Your task to perform on an android device: Toggle the flashlight Image 0: 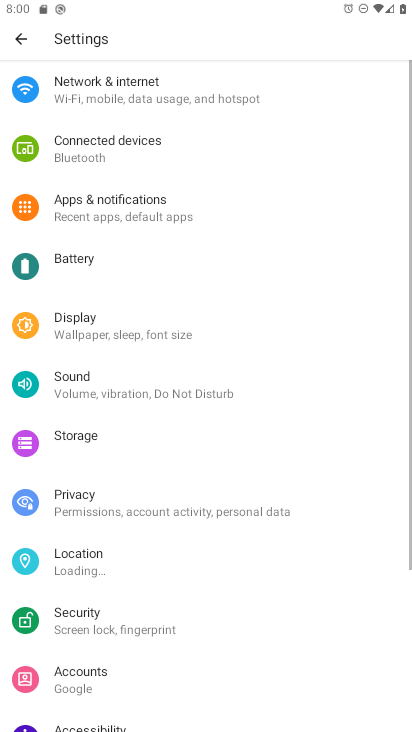
Step 0: drag from (174, 673) to (209, 406)
Your task to perform on an android device: Toggle the flashlight Image 1: 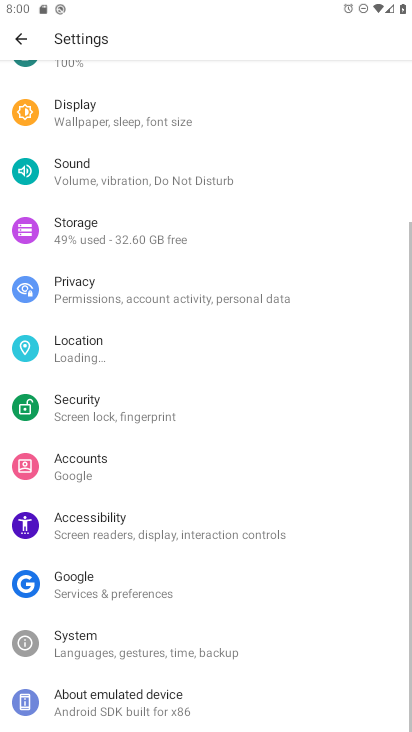
Step 1: press home button
Your task to perform on an android device: Toggle the flashlight Image 2: 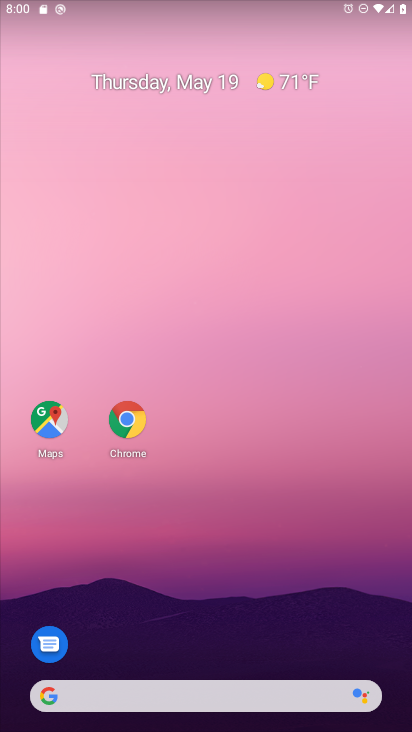
Step 2: drag from (250, 11) to (293, 480)
Your task to perform on an android device: Toggle the flashlight Image 3: 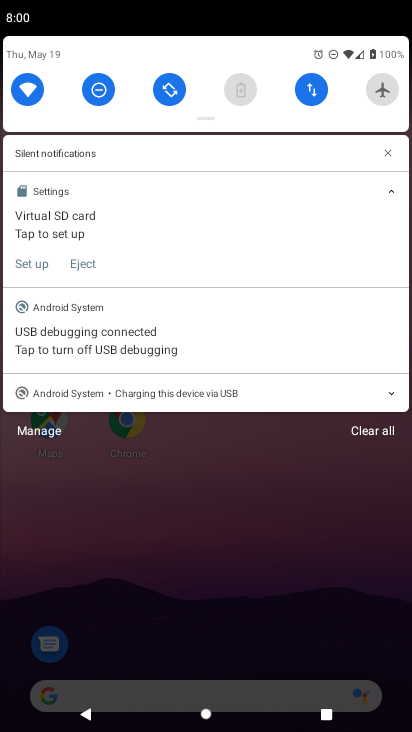
Step 3: drag from (225, 76) to (257, 530)
Your task to perform on an android device: Toggle the flashlight Image 4: 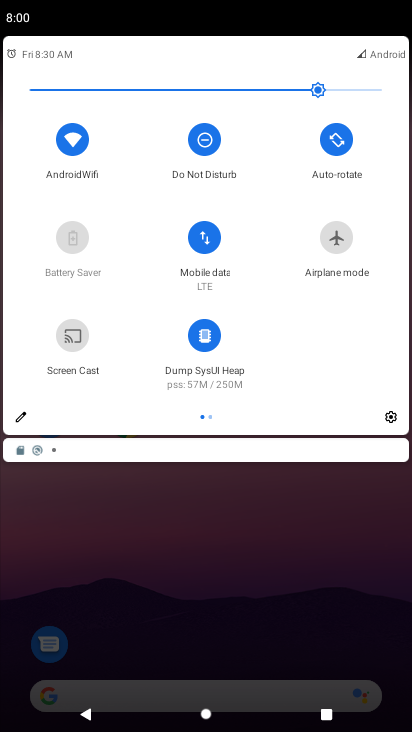
Step 4: drag from (343, 320) to (2, 397)
Your task to perform on an android device: Toggle the flashlight Image 5: 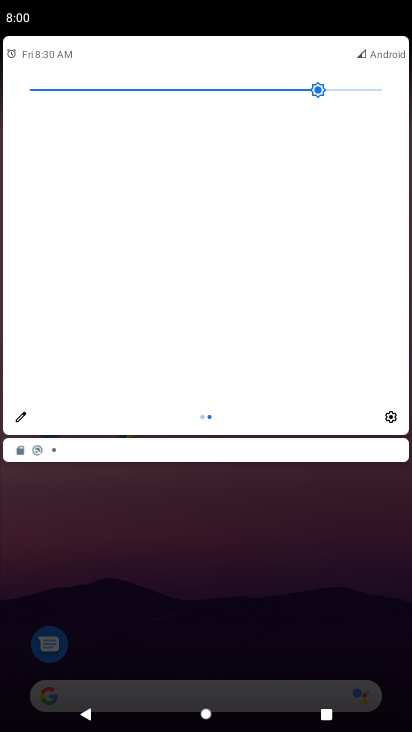
Step 5: click (14, 421)
Your task to perform on an android device: Toggle the flashlight Image 6: 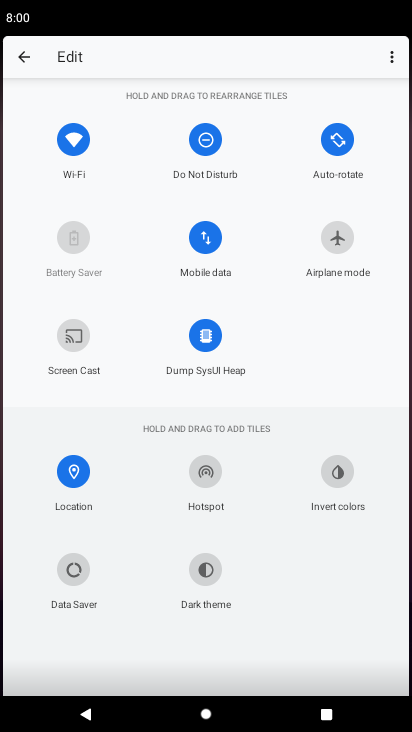
Step 6: task complete